Your task to perform on an android device: turn off data saver in the chrome app Image 0: 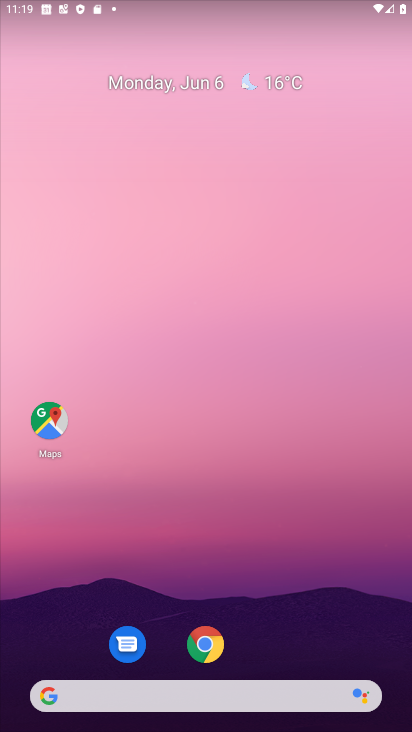
Step 0: click (206, 645)
Your task to perform on an android device: turn off data saver in the chrome app Image 1: 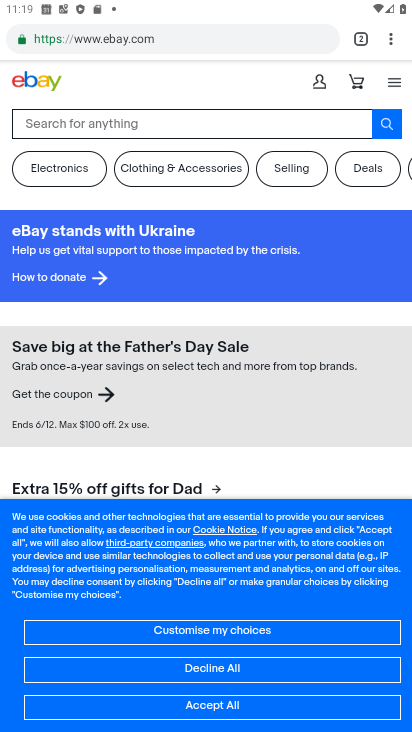
Step 1: click (392, 41)
Your task to perform on an android device: turn off data saver in the chrome app Image 2: 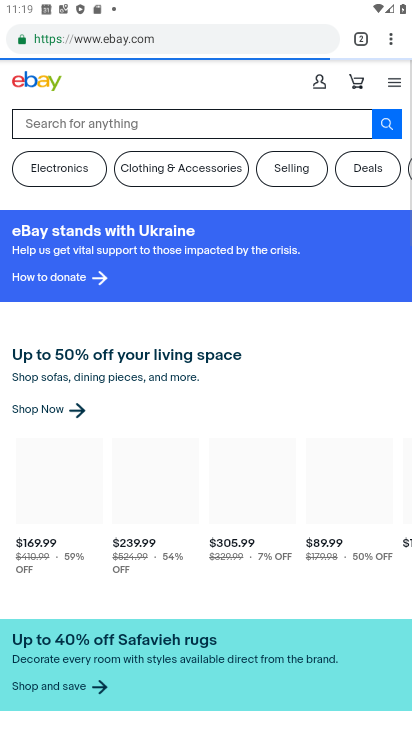
Step 2: click (392, 41)
Your task to perform on an android device: turn off data saver in the chrome app Image 3: 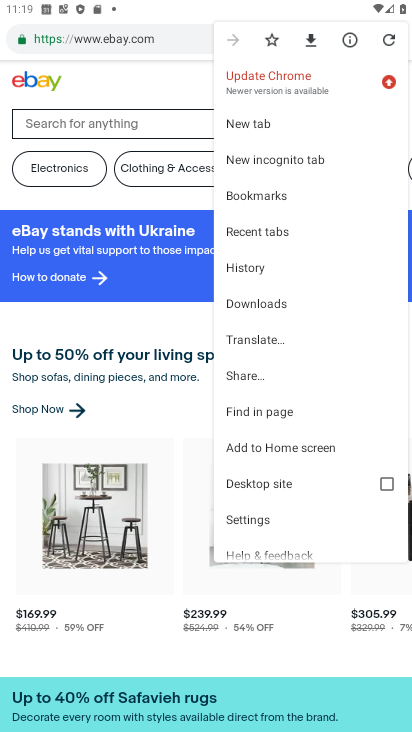
Step 3: click (261, 523)
Your task to perform on an android device: turn off data saver in the chrome app Image 4: 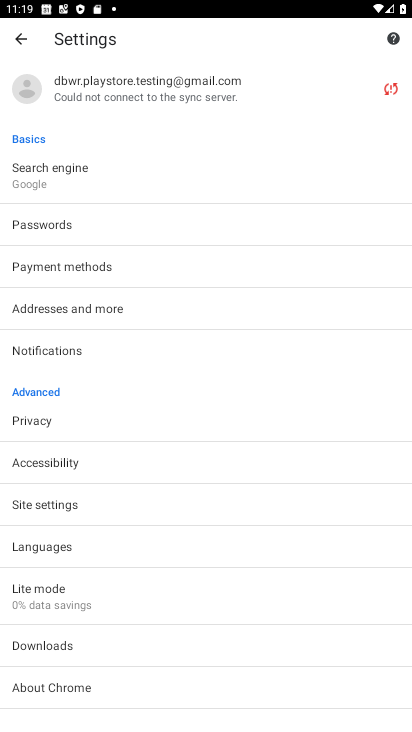
Step 4: click (206, 594)
Your task to perform on an android device: turn off data saver in the chrome app Image 5: 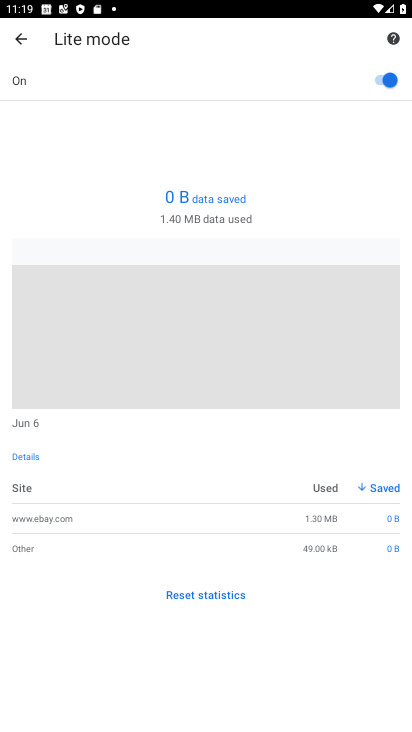
Step 5: click (387, 76)
Your task to perform on an android device: turn off data saver in the chrome app Image 6: 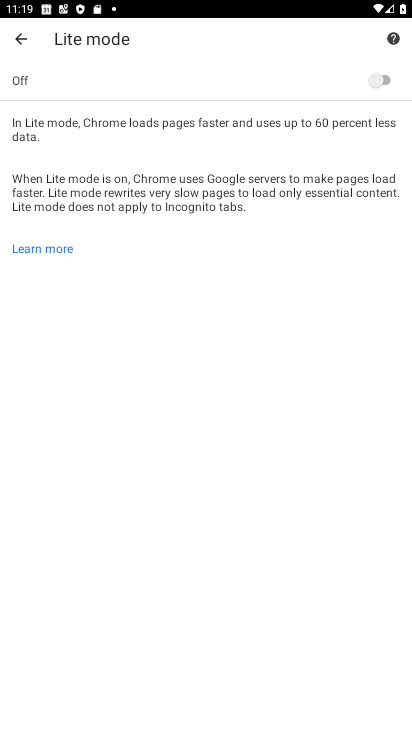
Step 6: task complete